Your task to perform on an android device: toggle data saver in the chrome app Image 0: 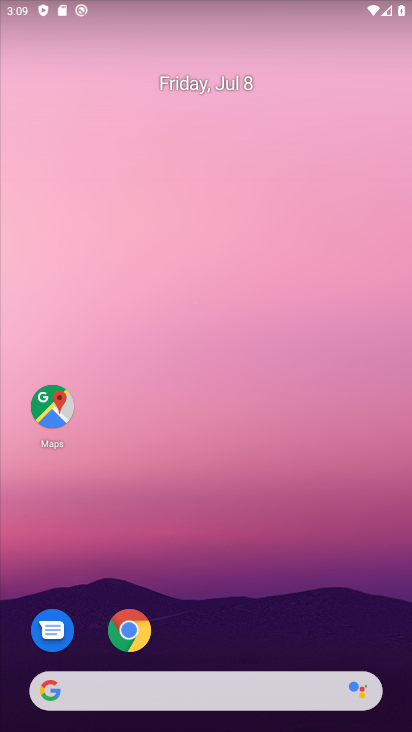
Step 0: click (131, 628)
Your task to perform on an android device: toggle data saver in the chrome app Image 1: 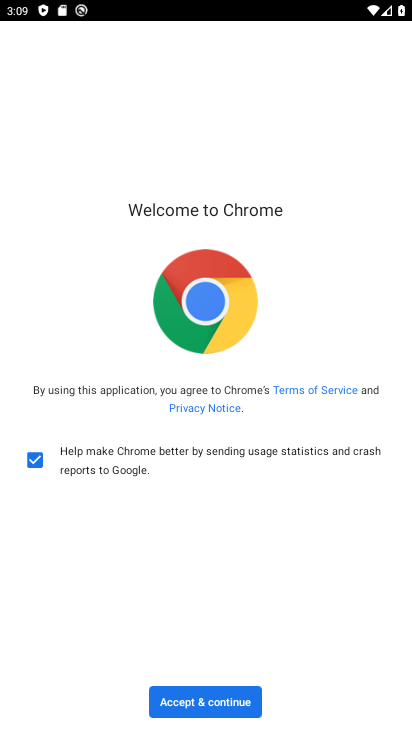
Step 1: click (183, 697)
Your task to perform on an android device: toggle data saver in the chrome app Image 2: 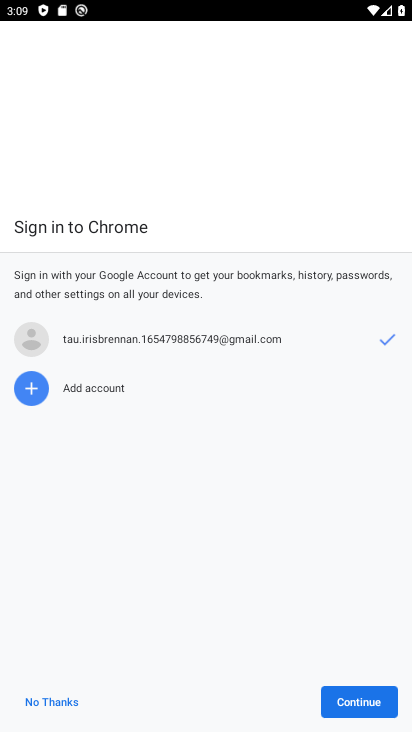
Step 2: click (350, 700)
Your task to perform on an android device: toggle data saver in the chrome app Image 3: 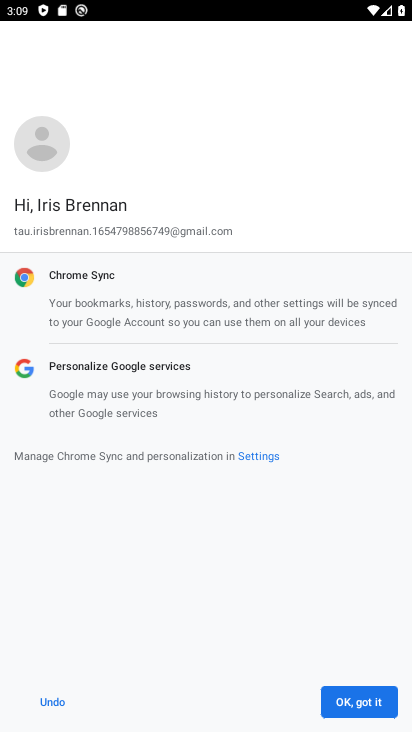
Step 3: click (350, 700)
Your task to perform on an android device: toggle data saver in the chrome app Image 4: 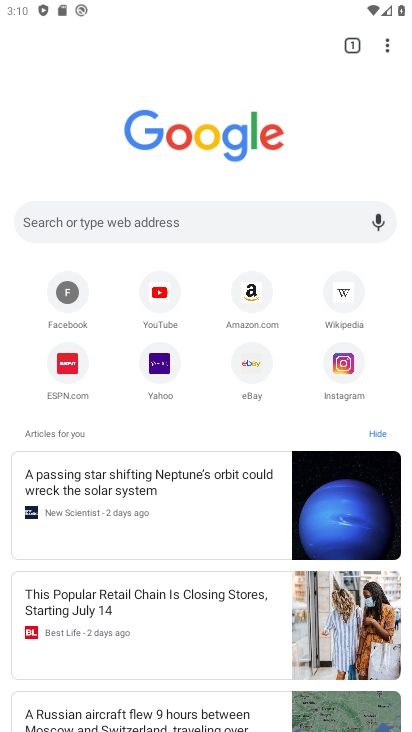
Step 4: click (386, 42)
Your task to perform on an android device: toggle data saver in the chrome app Image 5: 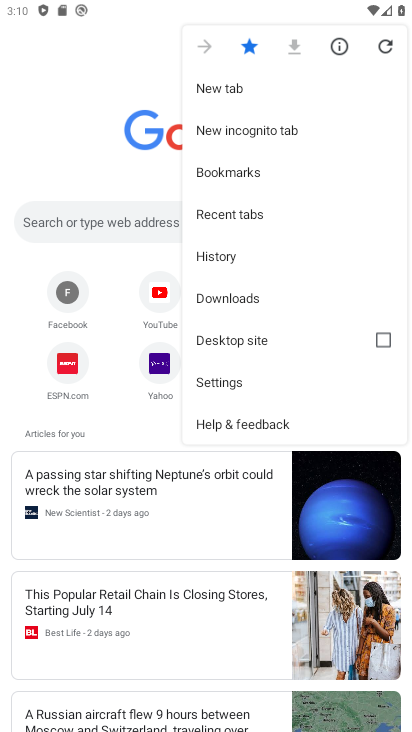
Step 5: click (227, 380)
Your task to perform on an android device: toggle data saver in the chrome app Image 6: 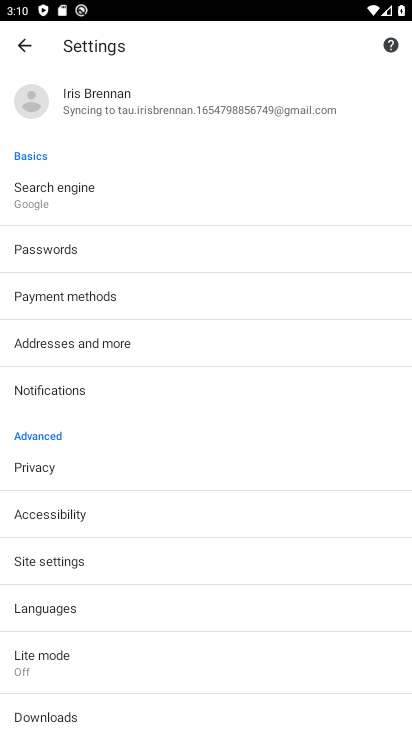
Step 6: click (47, 653)
Your task to perform on an android device: toggle data saver in the chrome app Image 7: 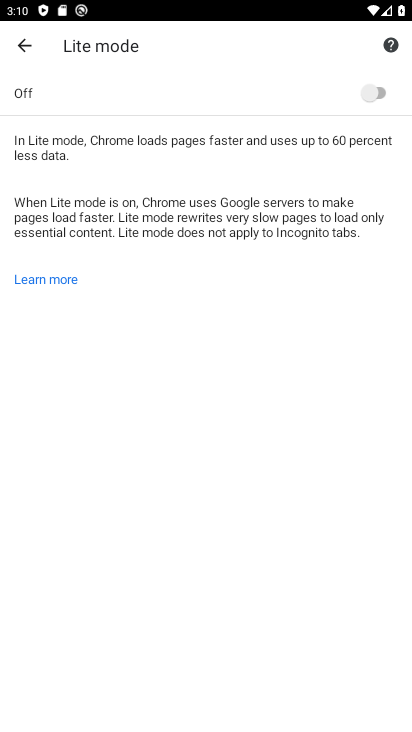
Step 7: click (377, 98)
Your task to perform on an android device: toggle data saver in the chrome app Image 8: 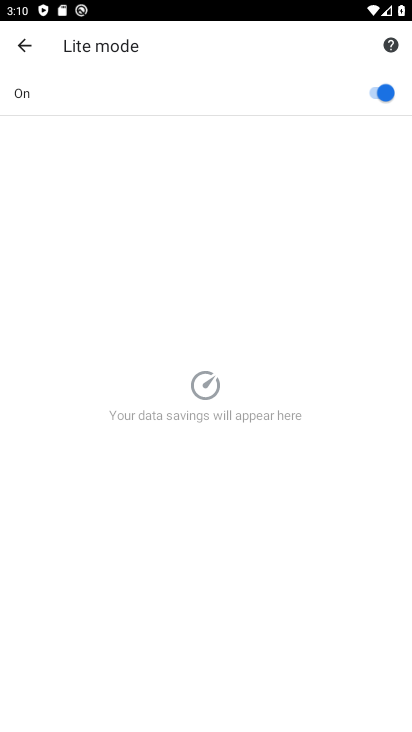
Step 8: task complete